Your task to perform on an android device: Open network settings Image 0: 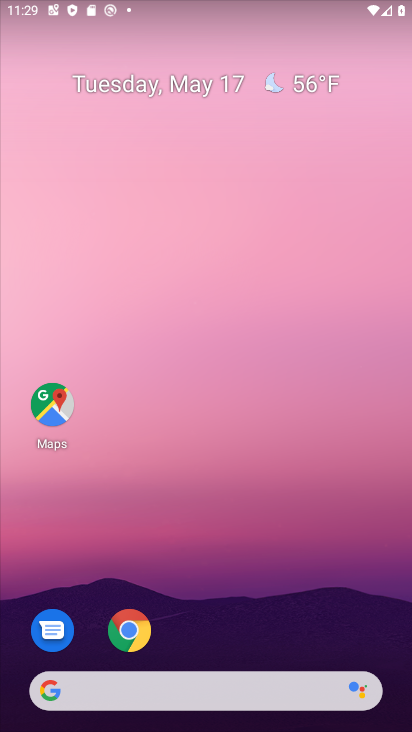
Step 0: drag from (282, 571) to (247, 189)
Your task to perform on an android device: Open network settings Image 1: 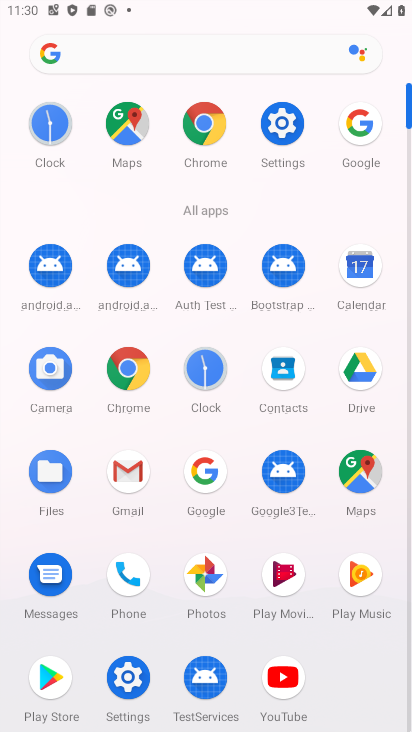
Step 1: click (273, 128)
Your task to perform on an android device: Open network settings Image 2: 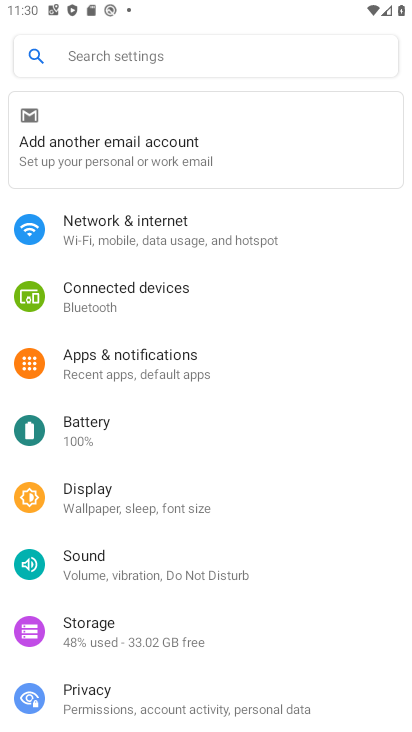
Step 2: click (83, 214)
Your task to perform on an android device: Open network settings Image 3: 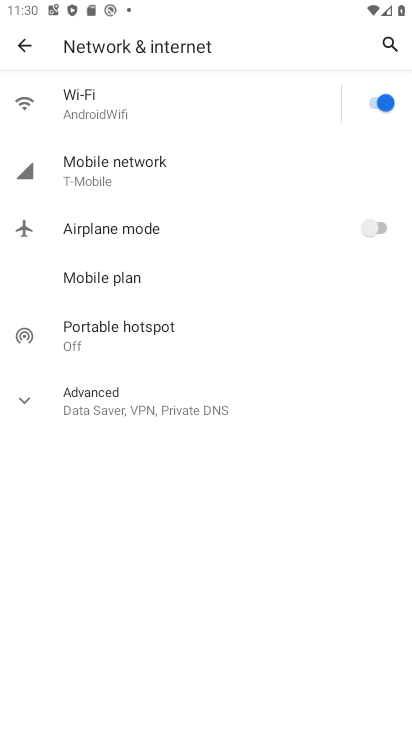
Step 3: task complete